Your task to perform on an android device: What's on my calendar today? Image 0: 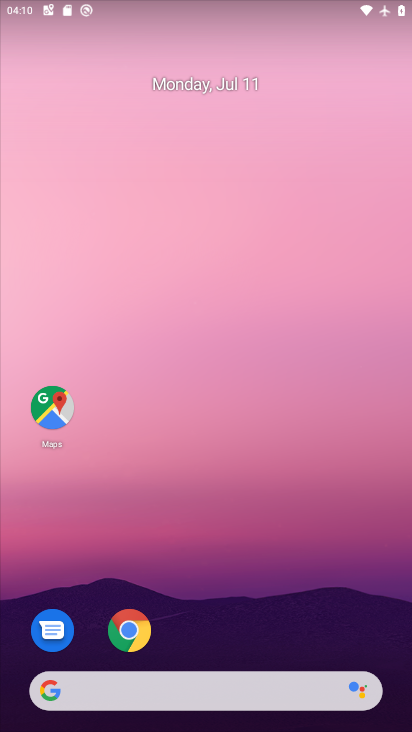
Step 0: drag from (217, 658) to (237, 177)
Your task to perform on an android device: What's on my calendar today? Image 1: 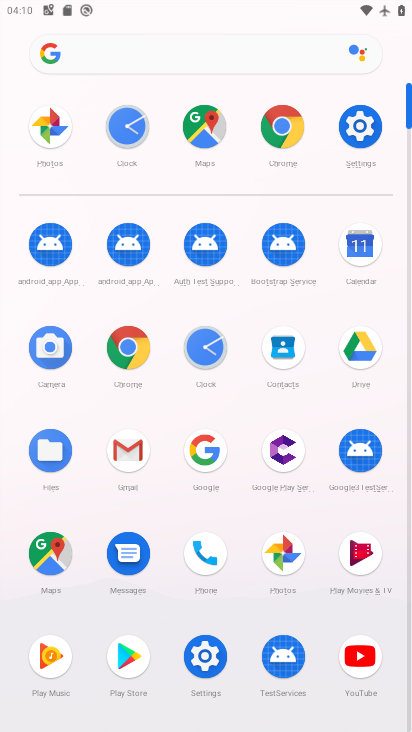
Step 1: click (366, 250)
Your task to perform on an android device: What's on my calendar today? Image 2: 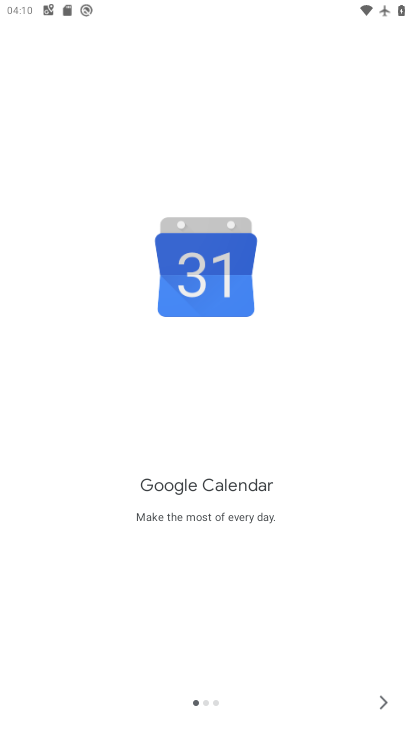
Step 2: click (373, 698)
Your task to perform on an android device: What's on my calendar today? Image 3: 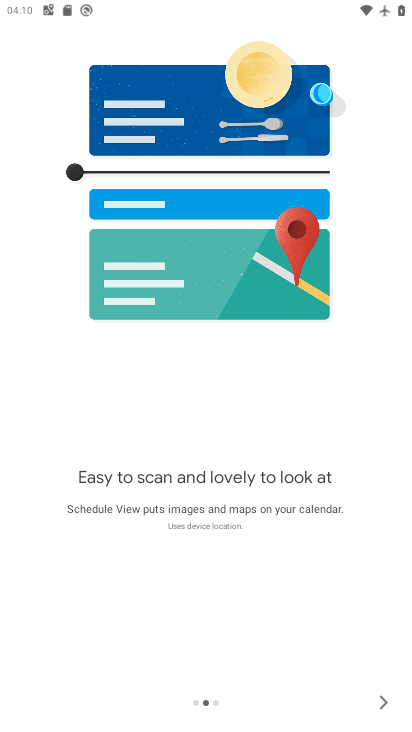
Step 3: click (373, 698)
Your task to perform on an android device: What's on my calendar today? Image 4: 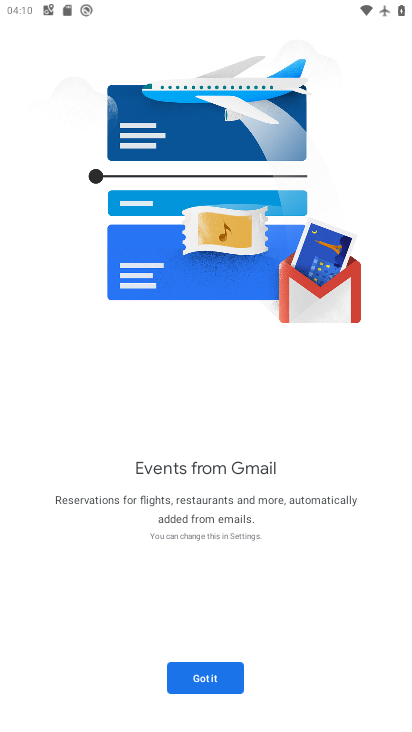
Step 4: click (373, 698)
Your task to perform on an android device: What's on my calendar today? Image 5: 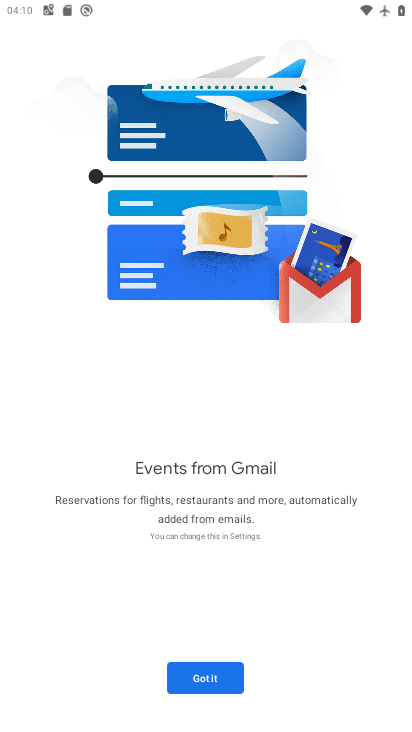
Step 5: click (179, 678)
Your task to perform on an android device: What's on my calendar today? Image 6: 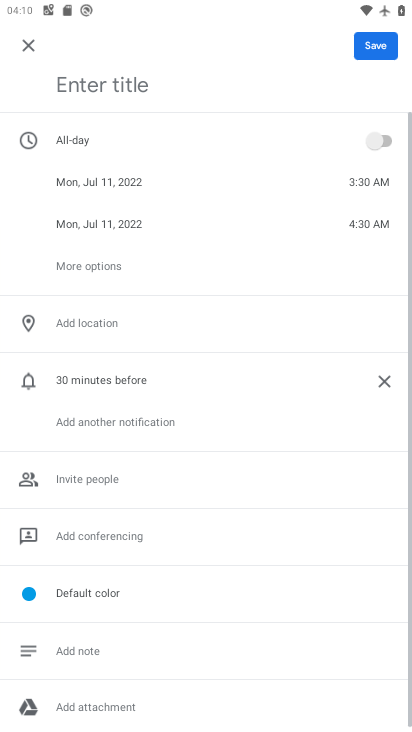
Step 6: task complete